Your task to perform on an android device: open chrome privacy settings Image 0: 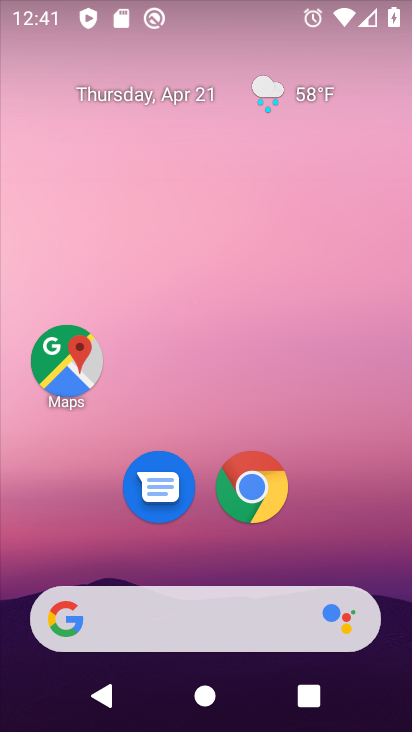
Step 0: click (253, 498)
Your task to perform on an android device: open chrome privacy settings Image 1: 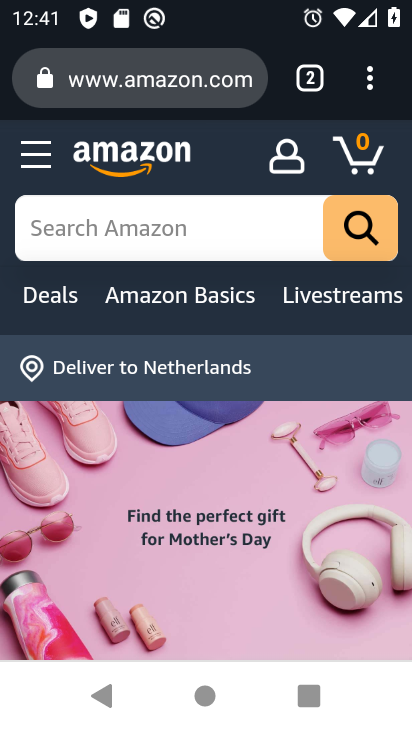
Step 1: drag from (371, 76) to (98, 549)
Your task to perform on an android device: open chrome privacy settings Image 2: 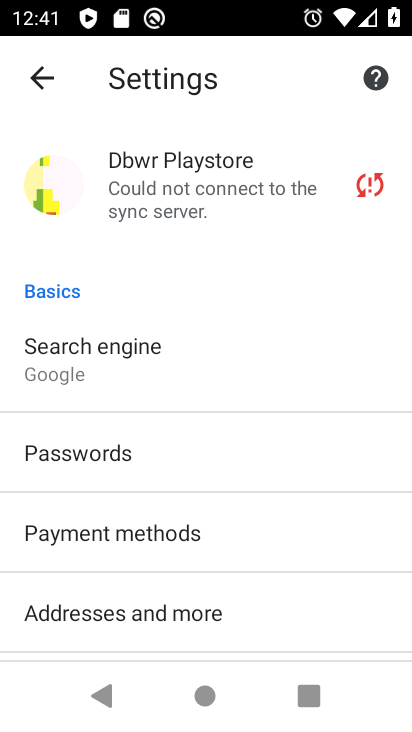
Step 2: drag from (216, 603) to (230, 265)
Your task to perform on an android device: open chrome privacy settings Image 3: 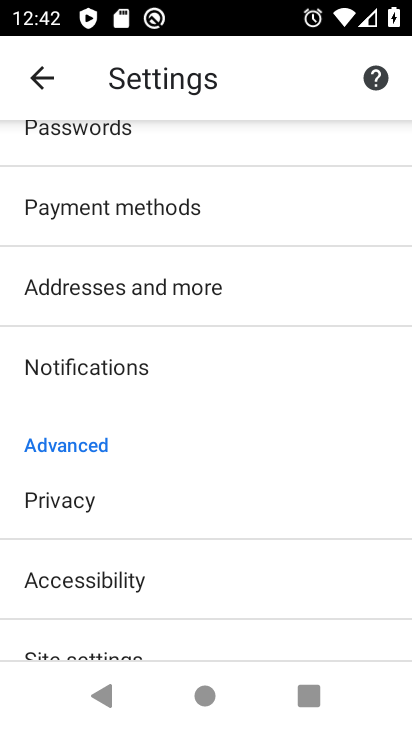
Step 3: drag from (240, 620) to (241, 296)
Your task to perform on an android device: open chrome privacy settings Image 4: 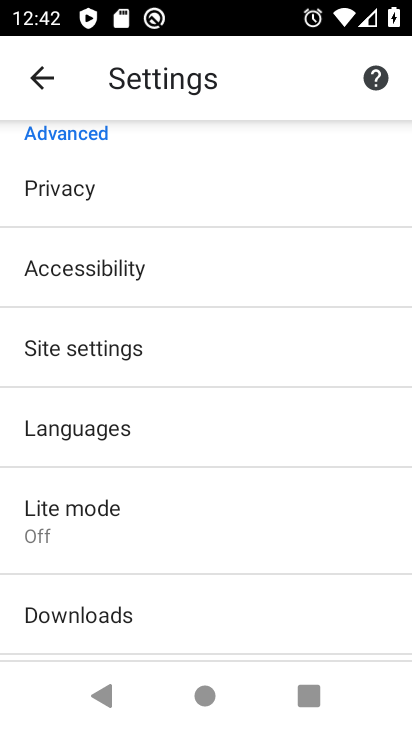
Step 4: click (70, 188)
Your task to perform on an android device: open chrome privacy settings Image 5: 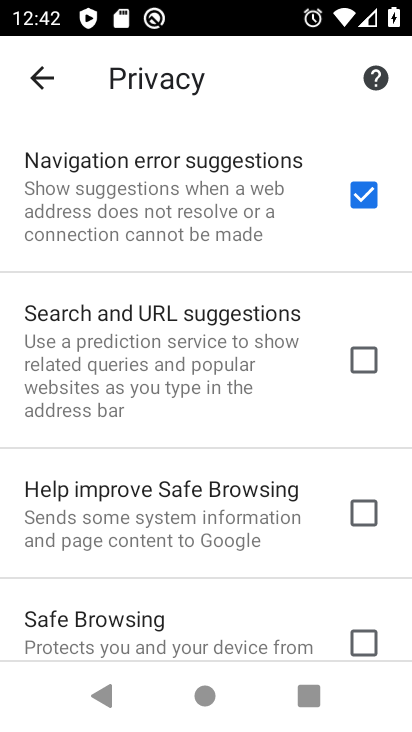
Step 5: task complete